Your task to perform on an android device: Go to battery settings Image 0: 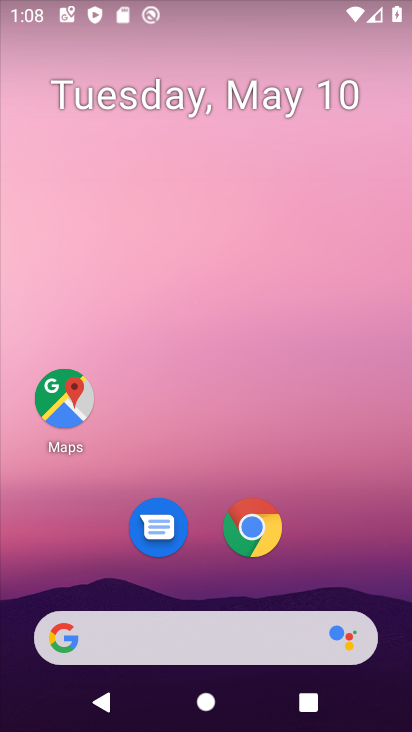
Step 0: drag from (207, 583) to (237, 223)
Your task to perform on an android device: Go to battery settings Image 1: 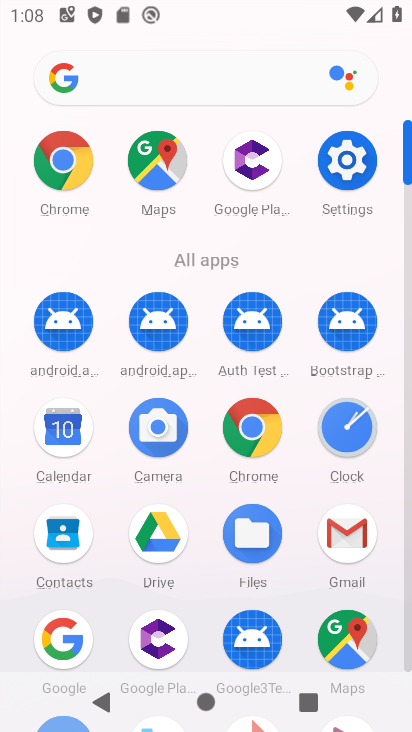
Step 1: click (342, 160)
Your task to perform on an android device: Go to battery settings Image 2: 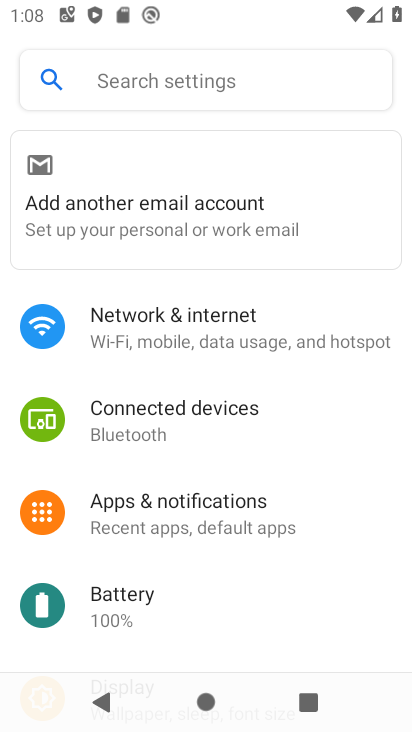
Step 2: click (153, 614)
Your task to perform on an android device: Go to battery settings Image 3: 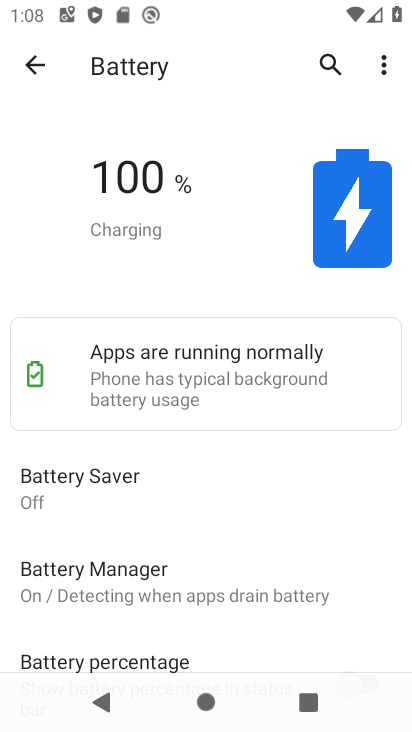
Step 3: task complete